Your task to perform on an android device: toggle translation in the chrome app Image 0: 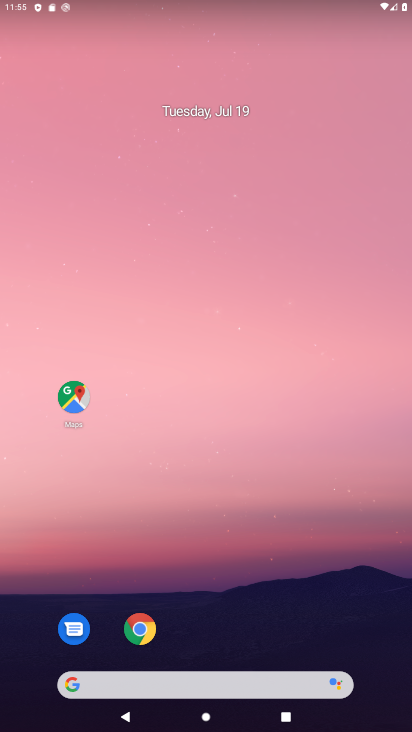
Step 0: click (136, 632)
Your task to perform on an android device: toggle translation in the chrome app Image 1: 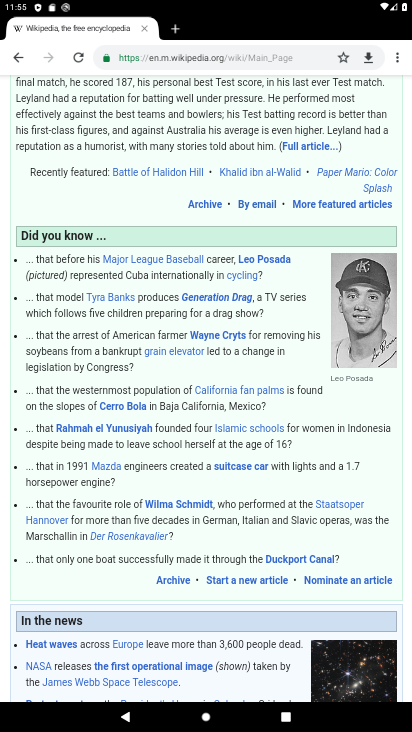
Step 1: click (398, 60)
Your task to perform on an android device: toggle translation in the chrome app Image 2: 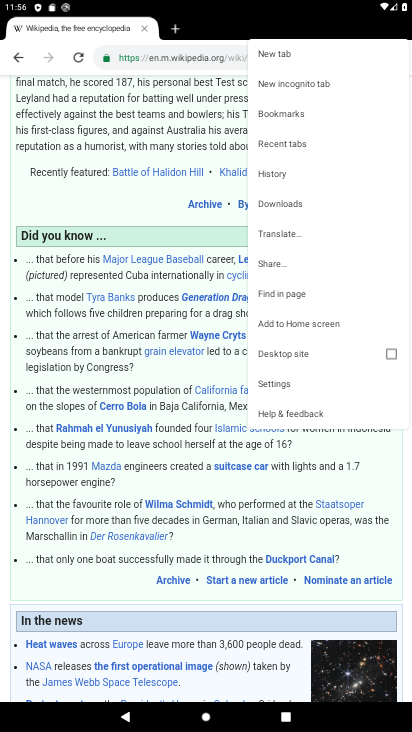
Step 2: click (279, 385)
Your task to perform on an android device: toggle translation in the chrome app Image 3: 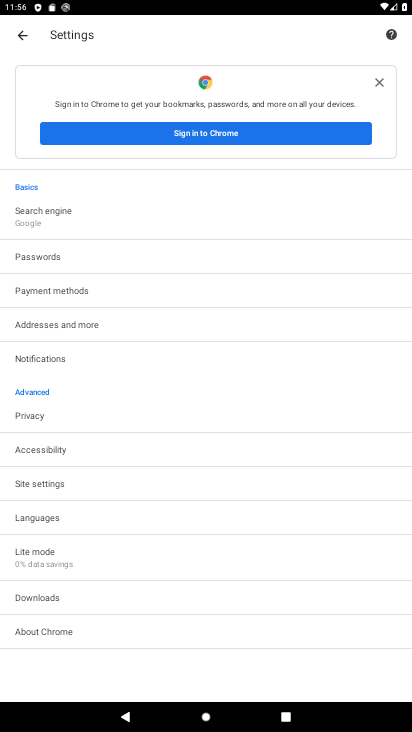
Step 3: click (43, 516)
Your task to perform on an android device: toggle translation in the chrome app Image 4: 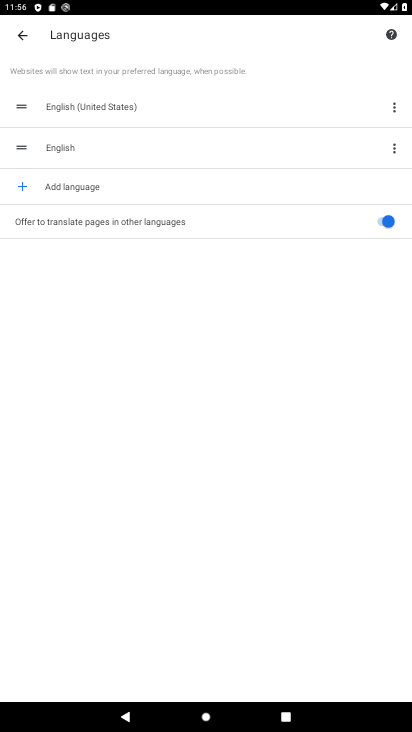
Step 4: click (389, 221)
Your task to perform on an android device: toggle translation in the chrome app Image 5: 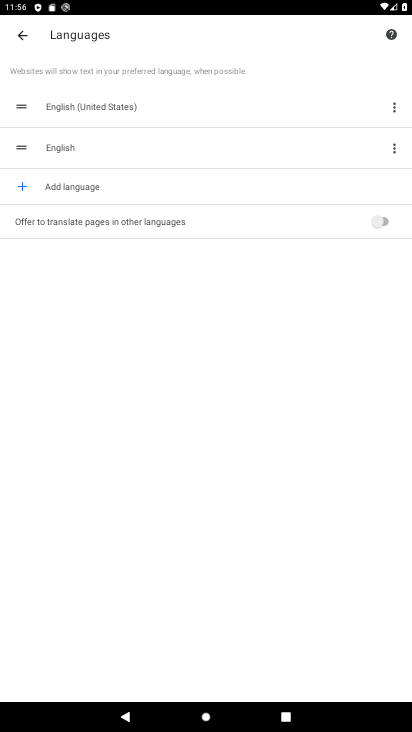
Step 5: task complete